Your task to perform on an android device: See recent photos Image 0: 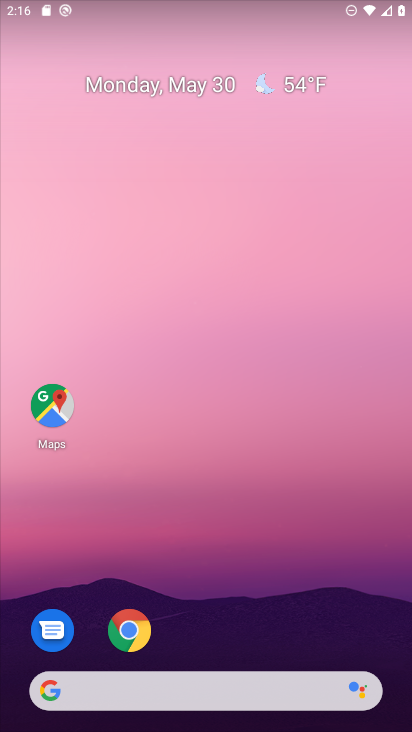
Step 0: press home button
Your task to perform on an android device: See recent photos Image 1: 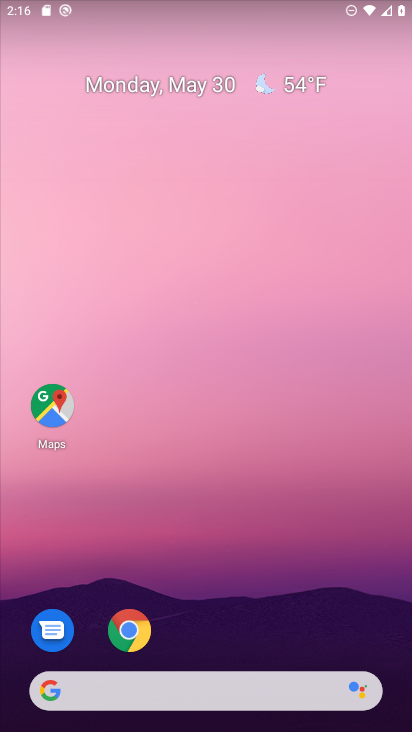
Step 1: drag from (124, 682) to (337, 0)
Your task to perform on an android device: See recent photos Image 2: 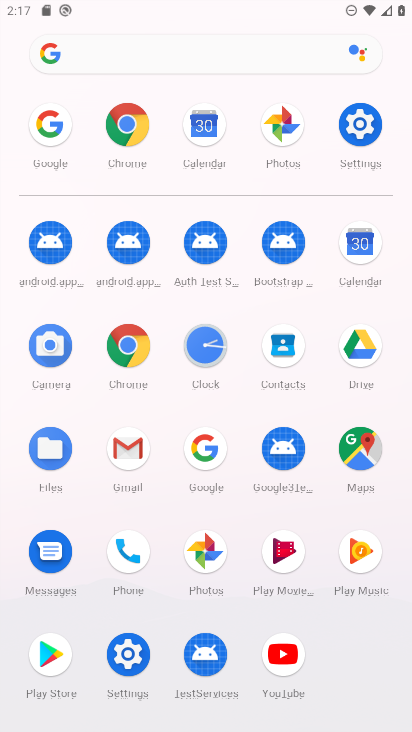
Step 2: click (203, 548)
Your task to perform on an android device: See recent photos Image 3: 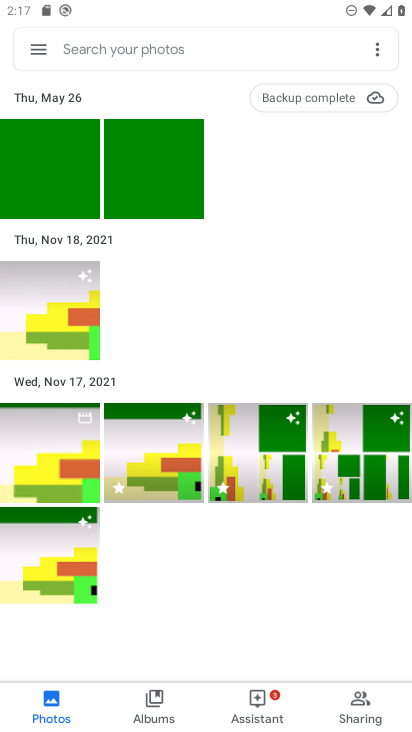
Step 3: click (165, 710)
Your task to perform on an android device: See recent photos Image 4: 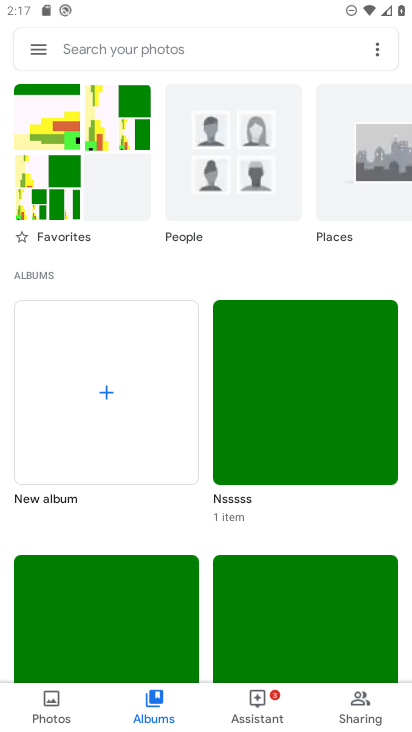
Step 4: task complete